Your task to perform on an android device: What's the weather going to be this weekend? Image 0: 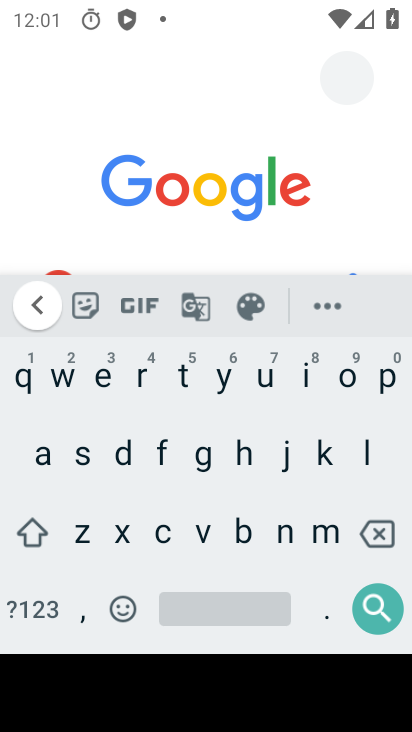
Step 0: press back button
Your task to perform on an android device: What's the weather going to be this weekend? Image 1: 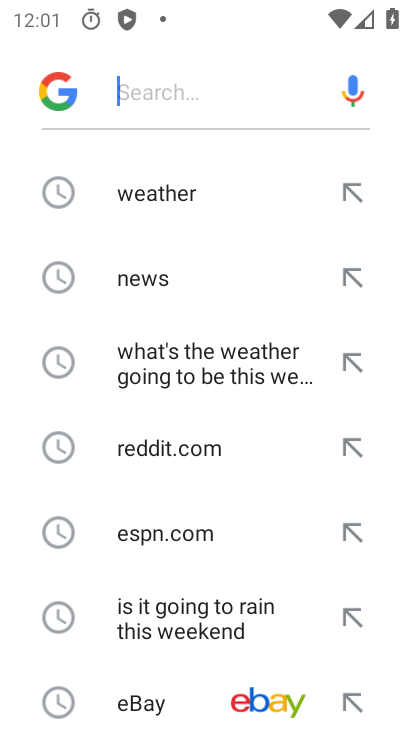
Step 1: press back button
Your task to perform on an android device: What's the weather going to be this weekend? Image 2: 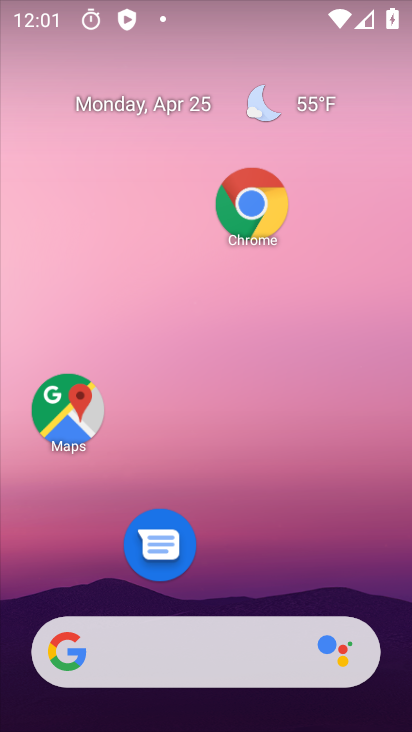
Step 2: drag from (282, 674) to (411, 171)
Your task to perform on an android device: What's the weather going to be this weekend? Image 3: 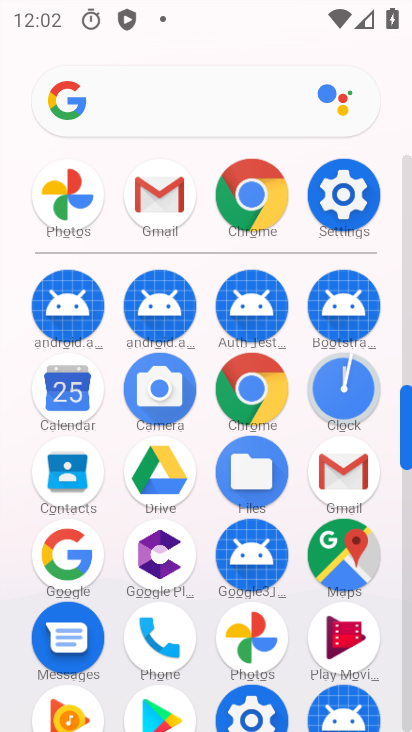
Step 3: click (231, 180)
Your task to perform on an android device: What's the weather going to be this weekend? Image 4: 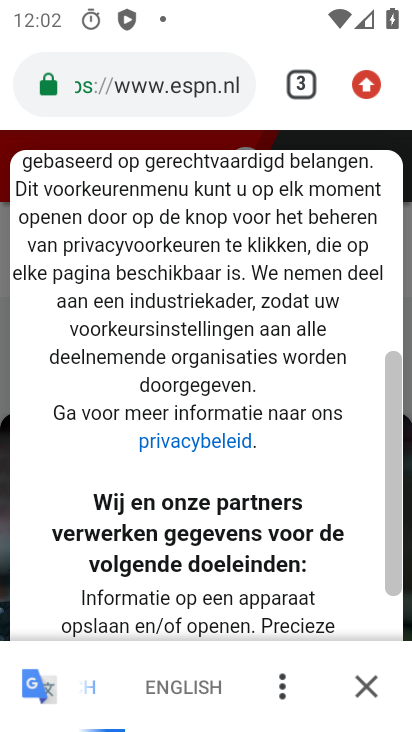
Step 4: click (142, 103)
Your task to perform on an android device: What's the weather going to be this weekend? Image 5: 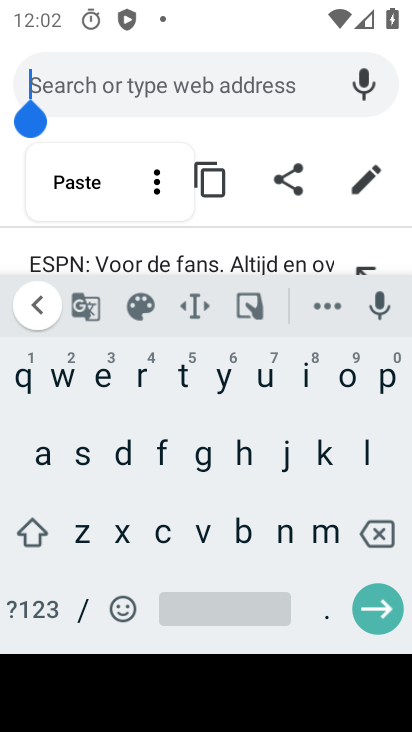
Step 5: click (63, 382)
Your task to perform on an android device: What's the weather going to be this weekend? Image 6: 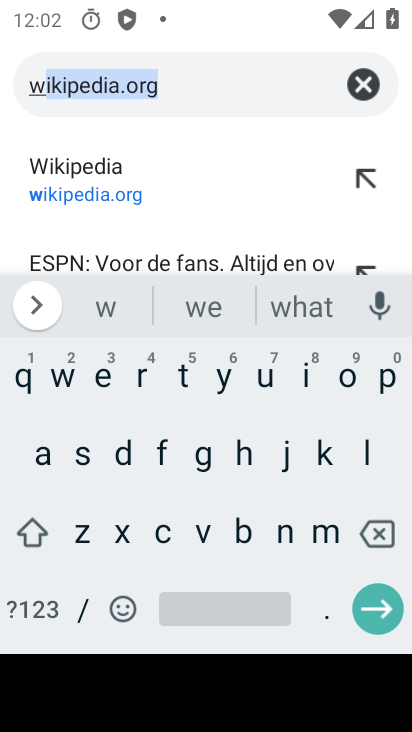
Step 6: click (102, 381)
Your task to perform on an android device: What's the weather going to be this weekend? Image 7: 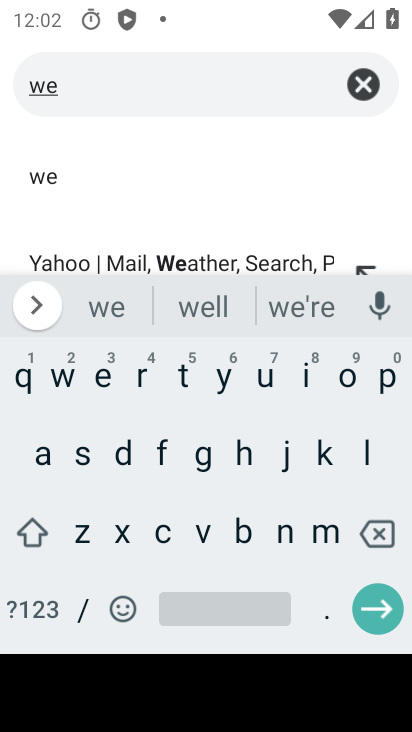
Step 7: click (42, 463)
Your task to perform on an android device: What's the weather going to be this weekend? Image 8: 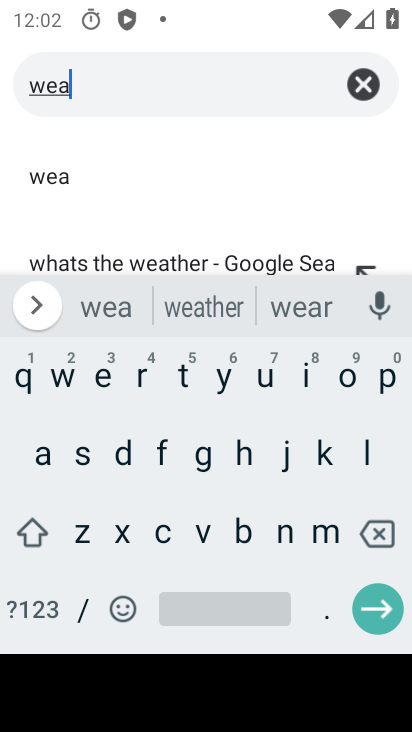
Step 8: click (196, 307)
Your task to perform on an android device: What's the weather going to be this weekend? Image 9: 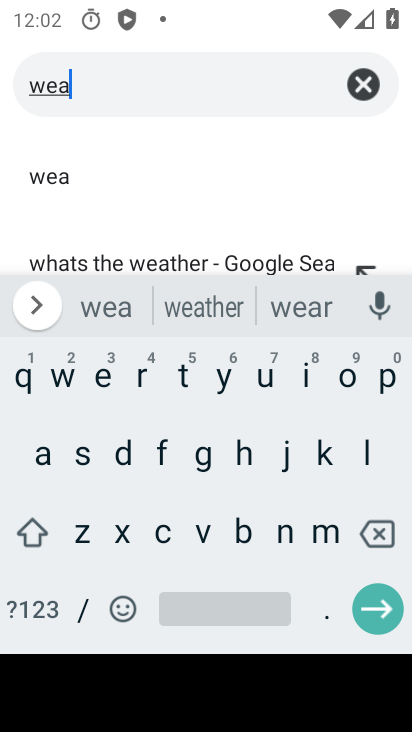
Step 9: click (196, 307)
Your task to perform on an android device: What's the weather going to be this weekend? Image 10: 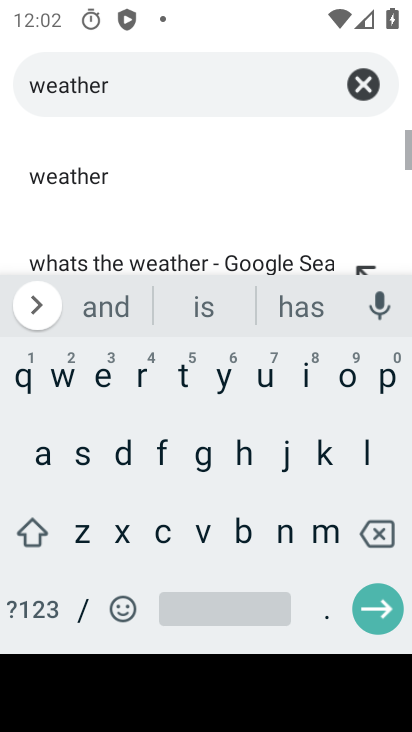
Step 10: click (196, 307)
Your task to perform on an android device: What's the weather going to be this weekend? Image 11: 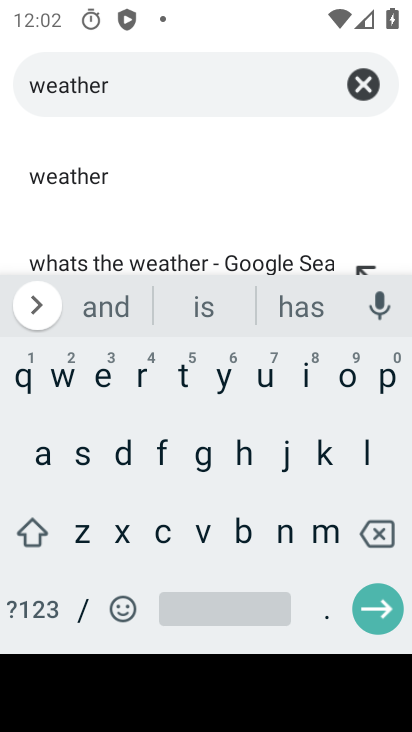
Step 11: click (379, 611)
Your task to perform on an android device: What's the weather going to be this weekend? Image 12: 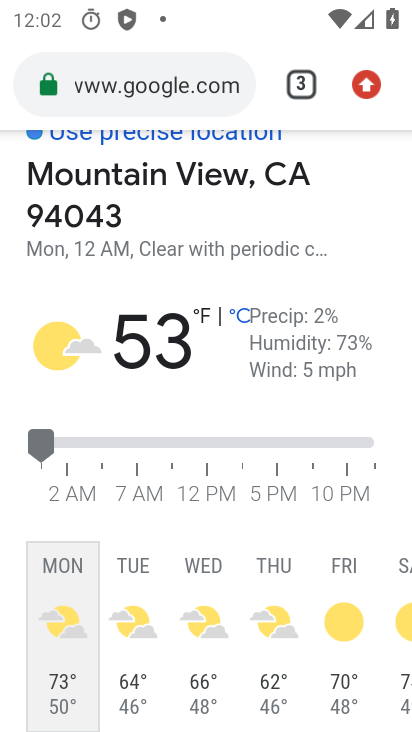
Step 12: task complete